Your task to perform on an android device: Show me the alarms in the clock app Image 0: 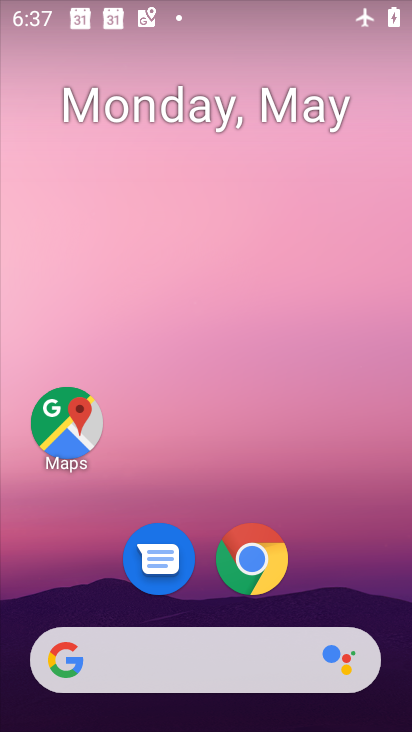
Step 0: drag from (383, 630) to (261, 144)
Your task to perform on an android device: Show me the alarms in the clock app Image 1: 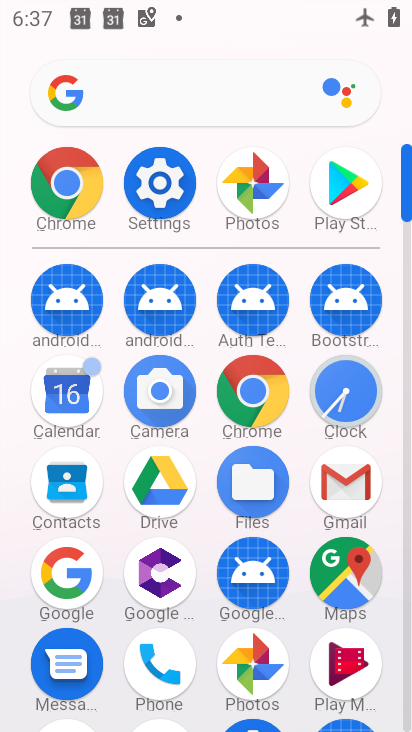
Step 1: click (352, 415)
Your task to perform on an android device: Show me the alarms in the clock app Image 2: 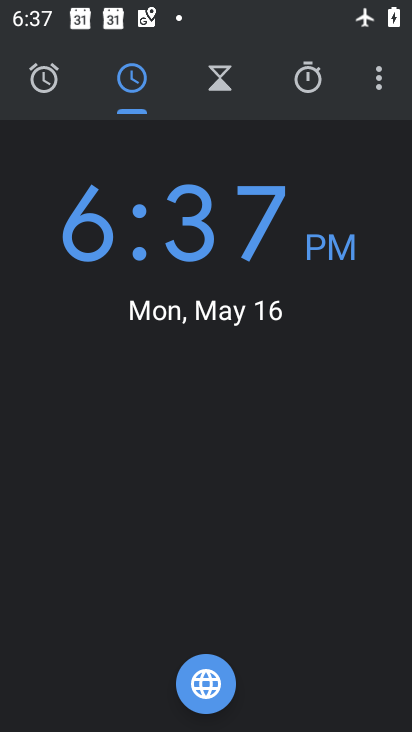
Step 2: click (65, 86)
Your task to perform on an android device: Show me the alarms in the clock app Image 3: 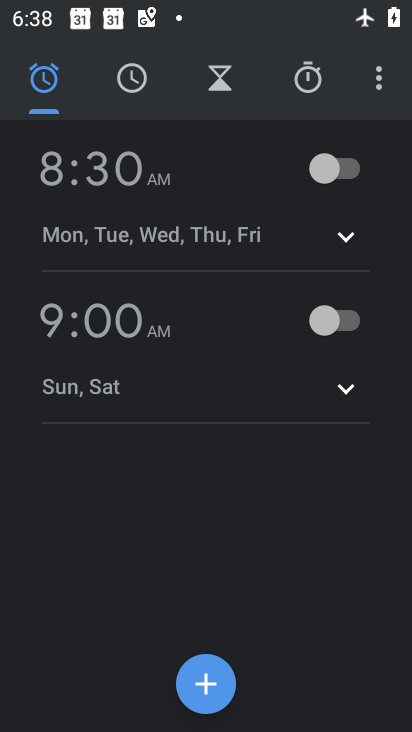
Step 3: task complete